Your task to perform on an android device: Open Chrome and go to settings Image 0: 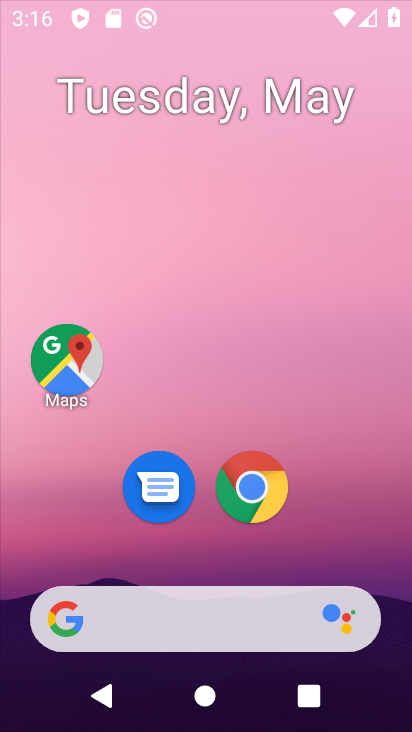
Step 0: drag from (211, 211) to (229, 5)
Your task to perform on an android device: Open Chrome and go to settings Image 1: 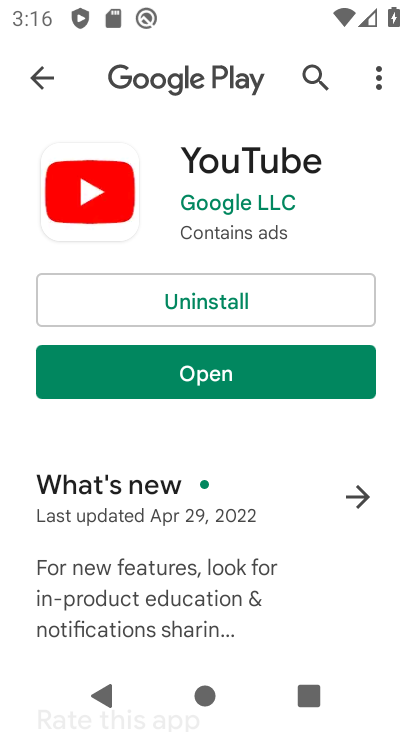
Step 1: press home button
Your task to perform on an android device: Open Chrome and go to settings Image 2: 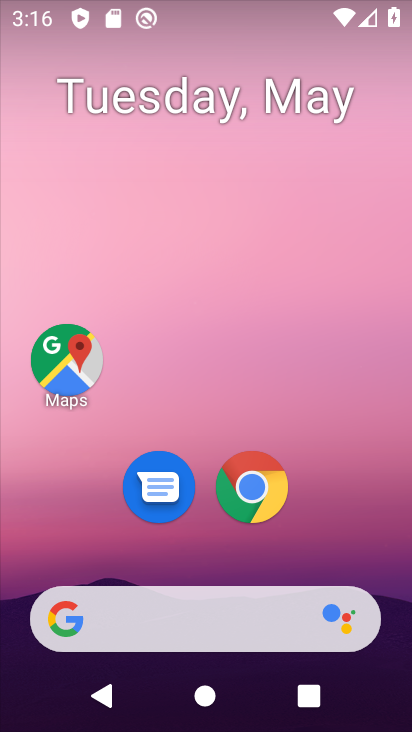
Step 2: drag from (196, 552) to (237, 89)
Your task to perform on an android device: Open Chrome and go to settings Image 3: 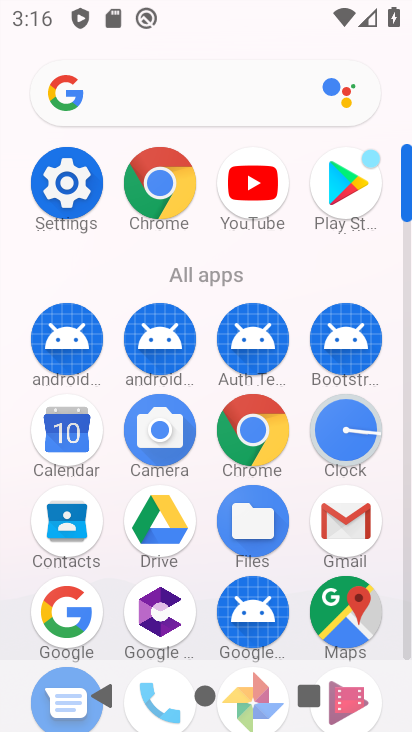
Step 3: click (67, 173)
Your task to perform on an android device: Open Chrome and go to settings Image 4: 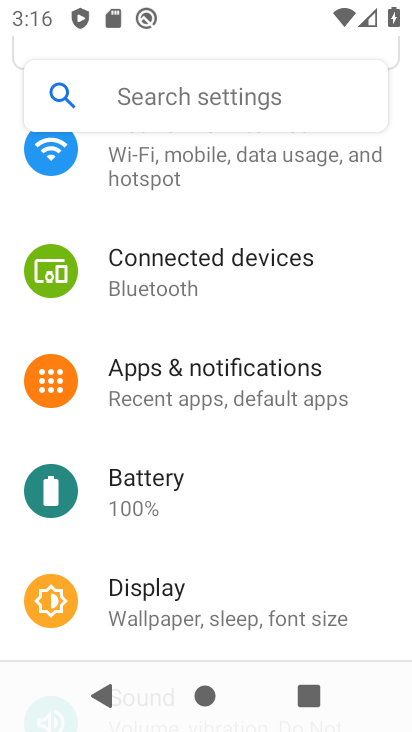
Step 4: press home button
Your task to perform on an android device: Open Chrome and go to settings Image 5: 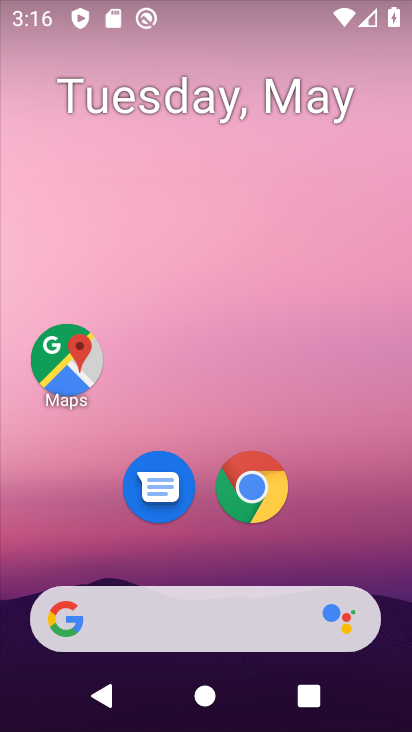
Step 5: click (246, 477)
Your task to perform on an android device: Open Chrome and go to settings Image 6: 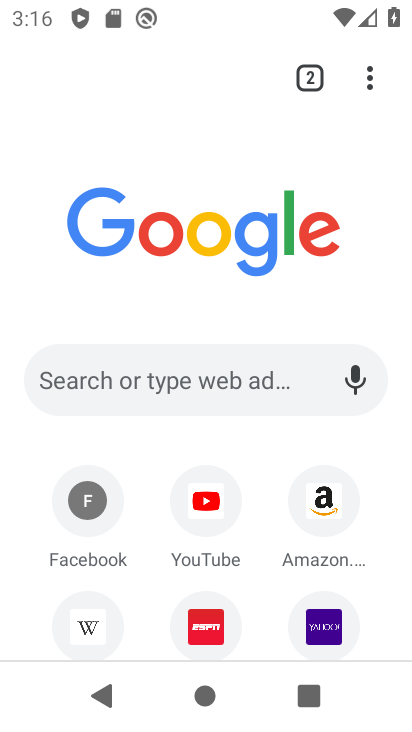
Step 6: click (368, 64)
Your task to perform on an android device: Open Chrome and go to settings Image 7: 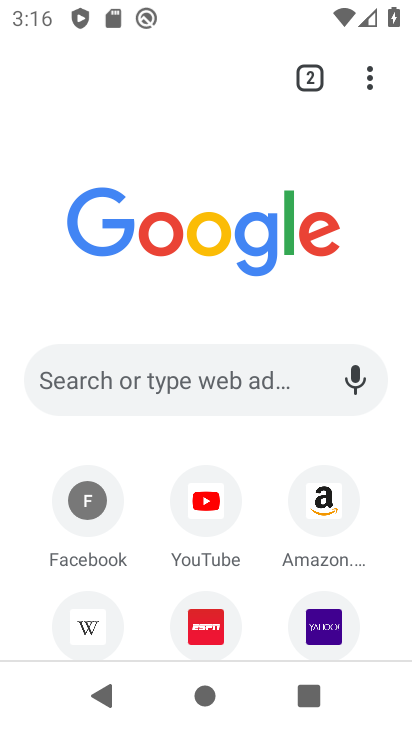
Step 7: click (363, 82)
Your task to perform on an android device: Open Chrome and go to settings Image 8: 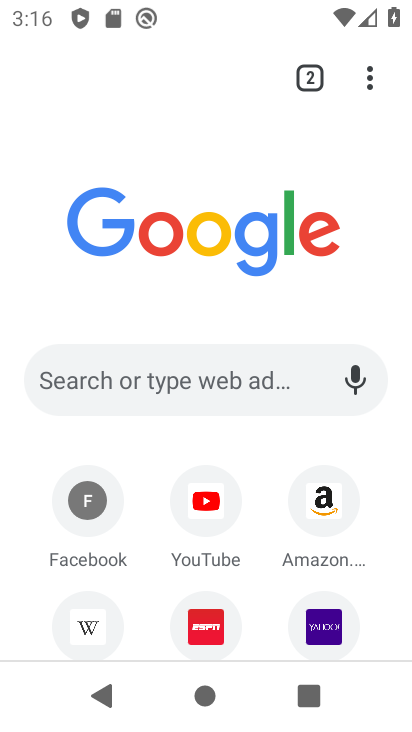
Step 8: click (361, 77)
Your task to perform on an android device: Open Chrome and go to settings Image 9: 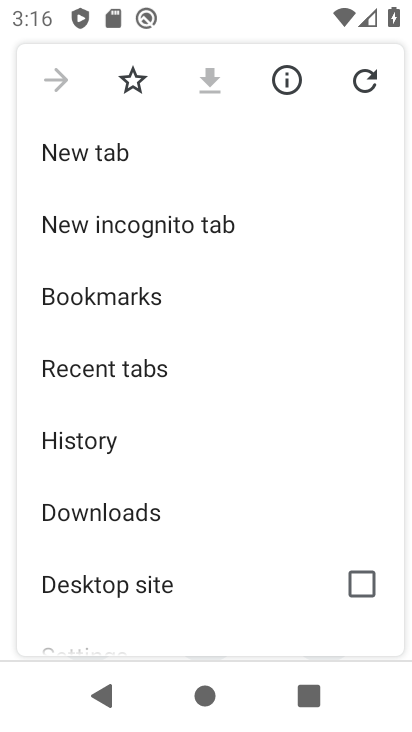
Step 9: drag from (216, 560) to (252, 193)
Your task to perform on an android device: Open Chrome and go to settings Image 10: 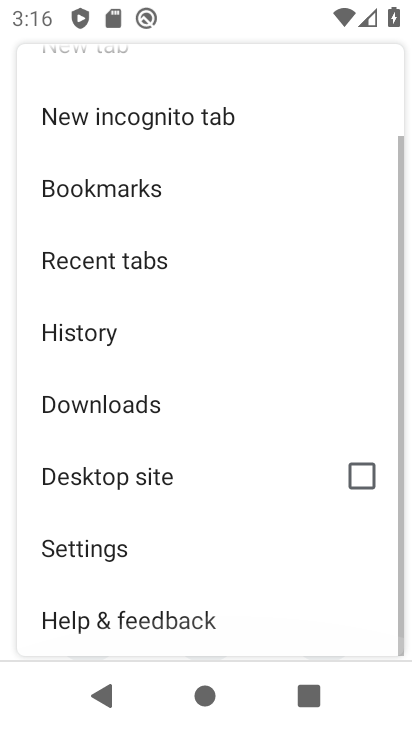
Step 10: click (257, 142)
Your task to perform on an android device: Open Chrome and go to settings Image 11: 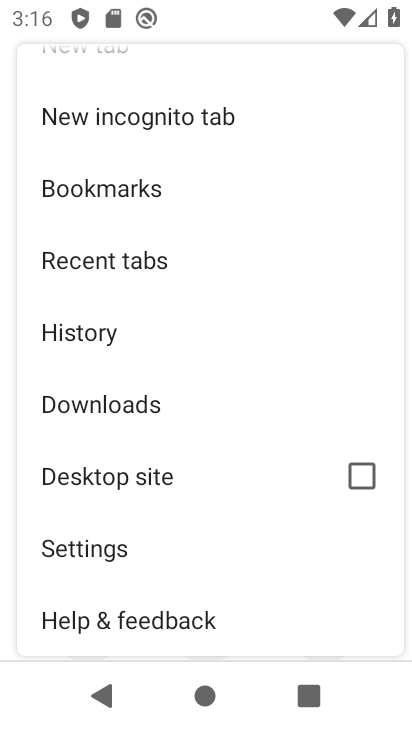
Step 11: click (134, 544)
Your task to perform on an android device: Open Chrome and go to settings Image 12: 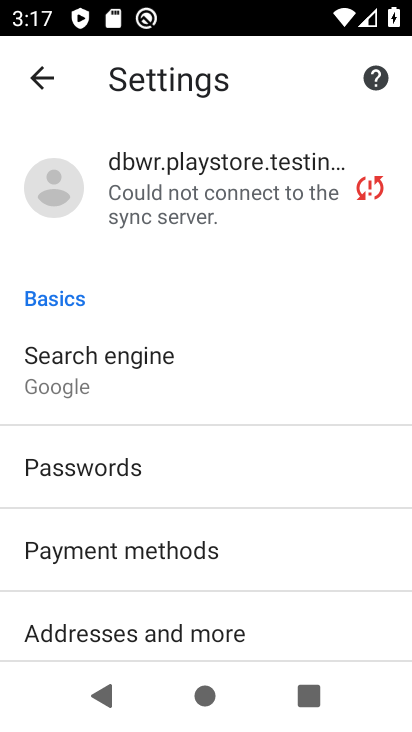
Step 12: task complete